Your task to perform on an android device: Check the latest 3D printers on Target. Image 0: 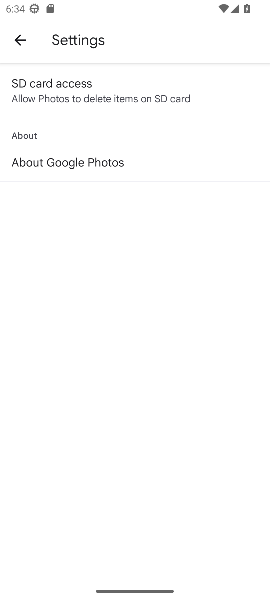
Step 0: press home button
Your task to perform on an android device: Check the latest 3D printers on Target. Image 1: 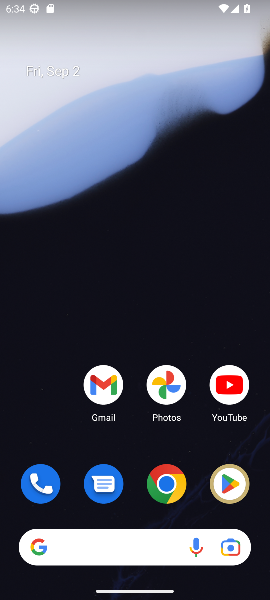
Step 1: click (167, 480)
Your task to perform on an android device: Check the latest 3D printers on Target. Image 2: 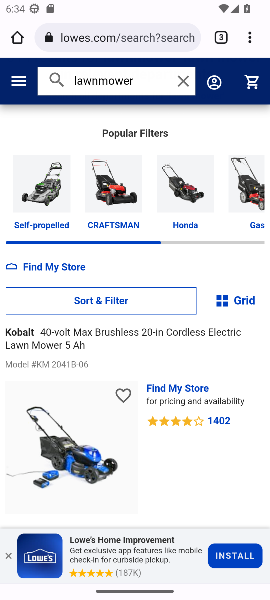
Step 2: click (151, 37)
Your task to perform on an android device: Check the latest 3D printers on Target. Image 3: 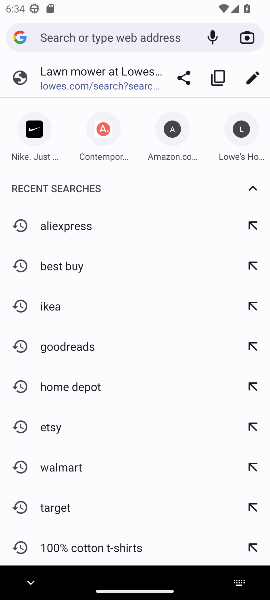
Step 3: press enter
Your task to perform on an android device: Check the latest 3D printers on Target. Image 4: 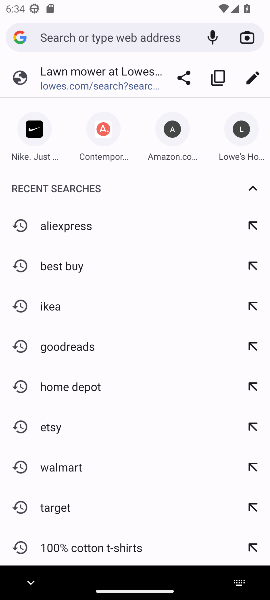
Step 4: type " Target"
Your task to perform on an android device: Check the latest 3D printers on Target. Image 5: 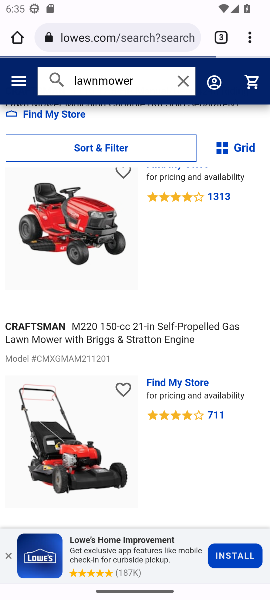
Step 5: click (142, 39)
Your task to perform on an android device: Check the latest 3D printers on Target. Image 6: 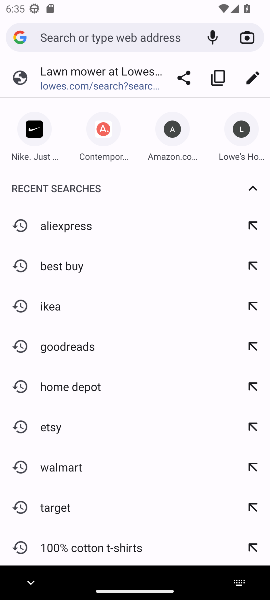
Step 6: type " Target"
Your task to perform on an android device: Check the latest 3D printers on Target. Image 7: 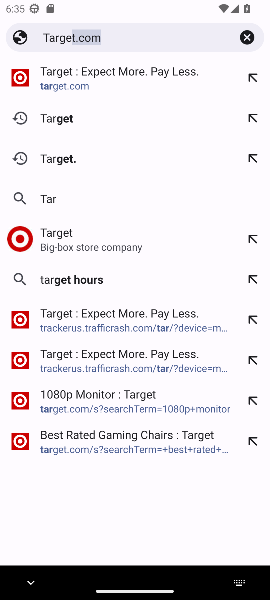
Step 7: press enter
Your task to perform on an android device: Check the latest 3D printers on Target. Image 8: 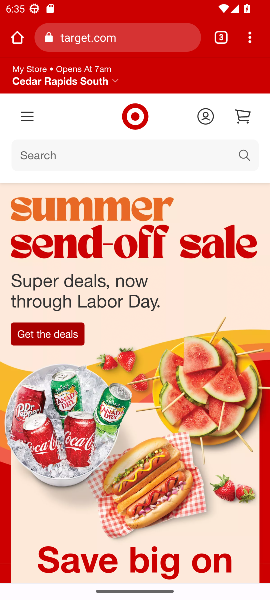
Step 8: click (242, 148)
Your task to perform on an android device: Check the latest 3D printers on Target. Image 9: 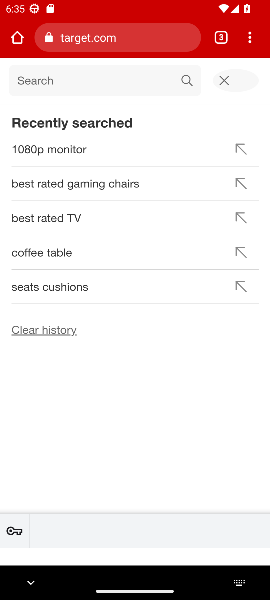
Step 9: type "3D printers"
Your task to perform on an android device: Check the latest 3D printers on Target. Image 10: 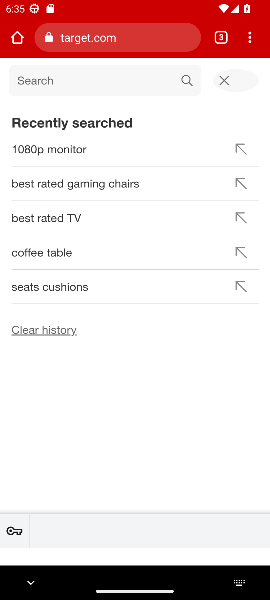
Step 10: press enter
Your task to perform on an android device: Check the latest 3D printers on Target. Image 11: 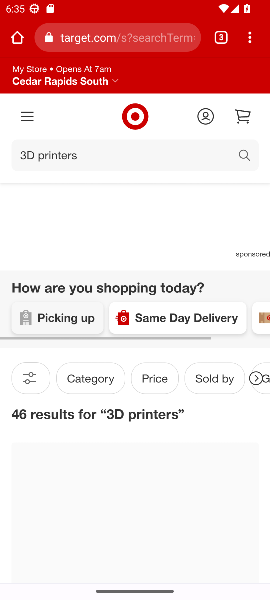
Step 11: task complete